Your task to perform on an android device: toggle javascript in the chrome app Image 0: 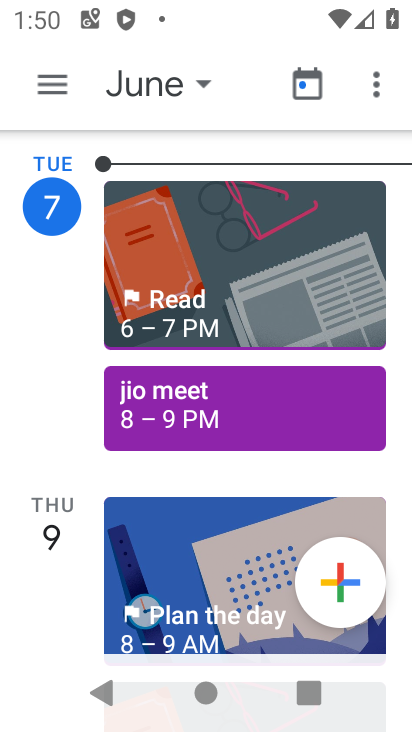
Step 0: press home button
Your task to perform on an android device: toggle javascript in the chrome app Image 1: 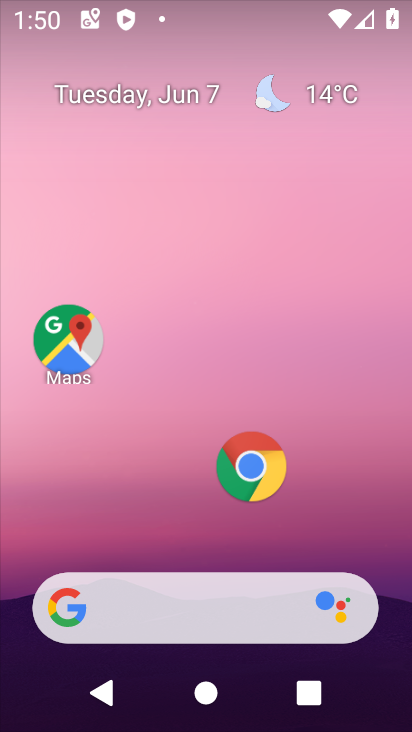
Step 1: click (254, 484)
Your task to perform on an android device: toggle javascript in the chrome app Image 2: 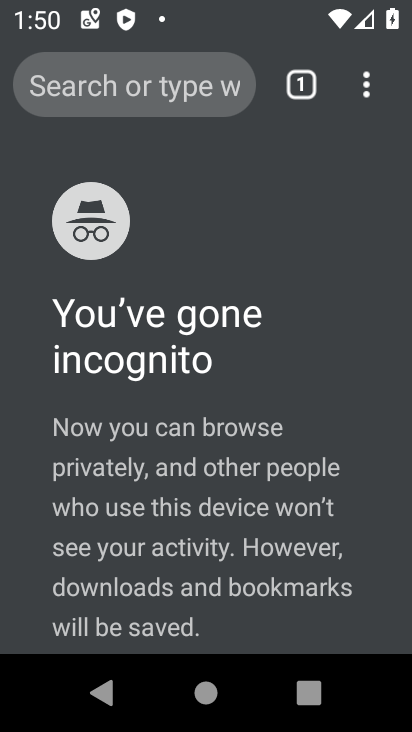
Step 2: click (369, 82)
Your task to perform on an android device: toggle javascript in the chrome app Image 3: 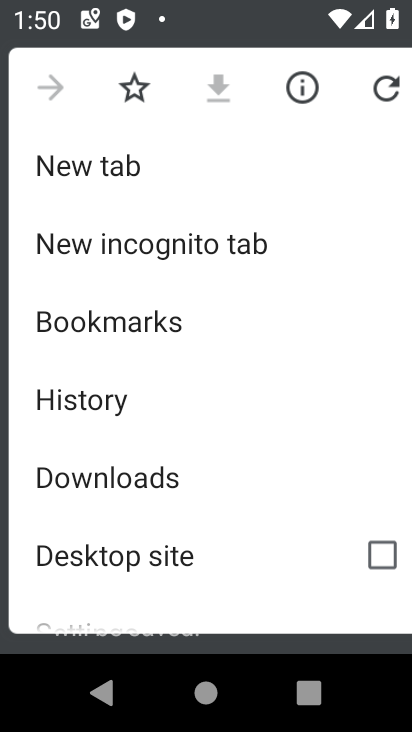
Step 3: drag from (177, 575) to (171, 236)
Your task to perform on an android device: toggle javascript in the chrome app Image 4: 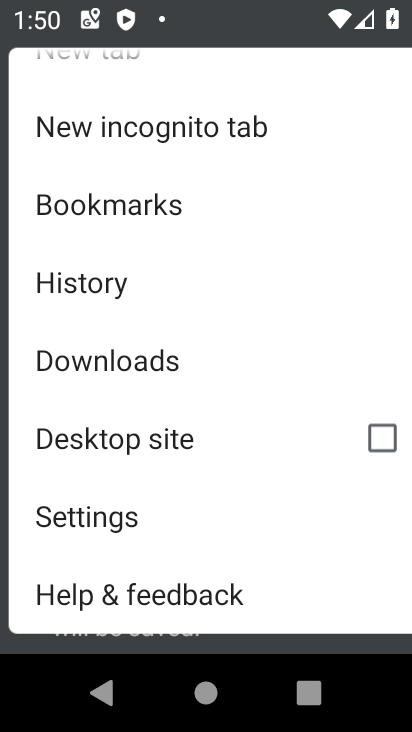
Step 4: click (134, 518)
Your task to perform on an android device: toggle javascript in the chrome app Image 5: 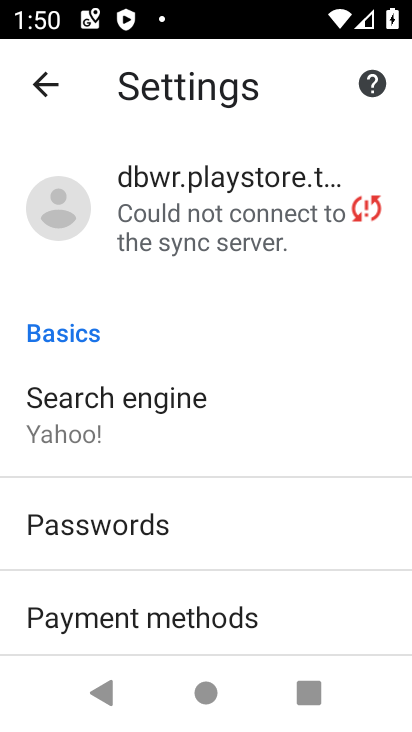
Step 5: drag from (283, 609) to (286, 305)
Your task to perform on an android device: toggle javascript in the chrome app Image 6: 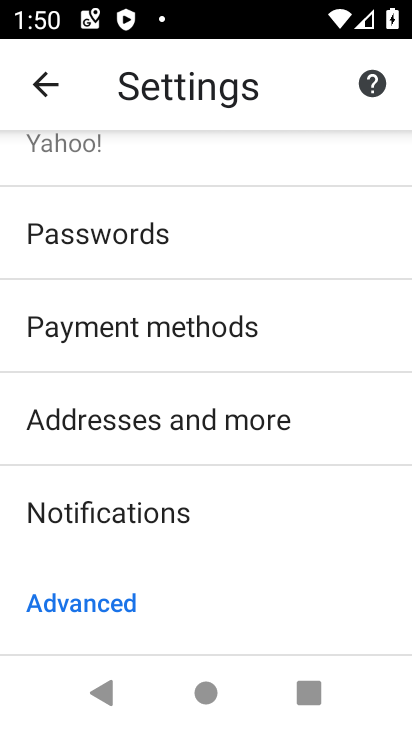
Step 6: drag from (206, 574) to (208, 182)
Your task to perform on an android device: toggle javascript in the chrome app Image 7: 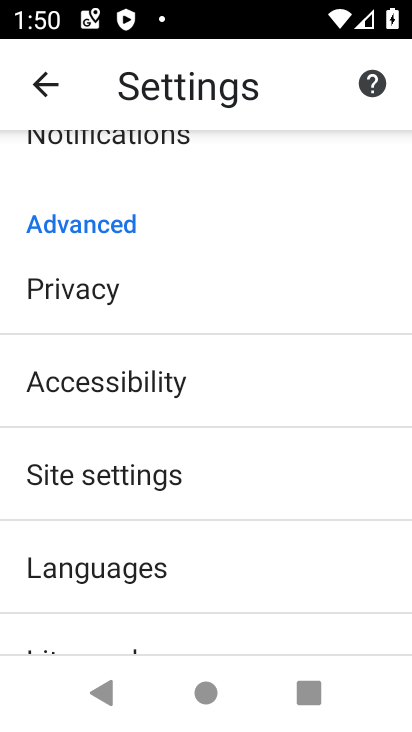
Step 7: click (102, 471)
Your task to perform on an android device: toggle javascript in the chrome app Image 8: 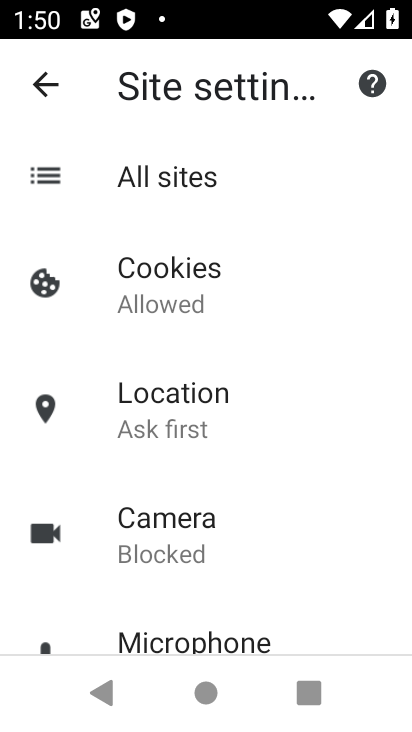
Step 8: drag from (279, 611) to (319, 239)
Your task to perform on an android device: toggle javascript in the chrome app Image 9: 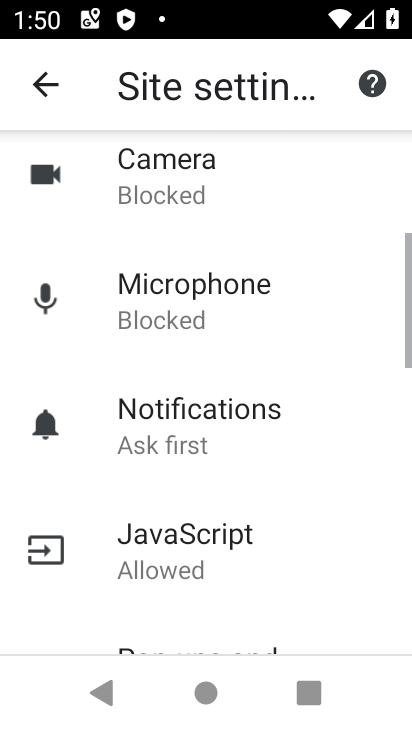
Step 9: click (196, 546)
Your task to perform on an android device: toggle javascript in the chrome app Image 10: 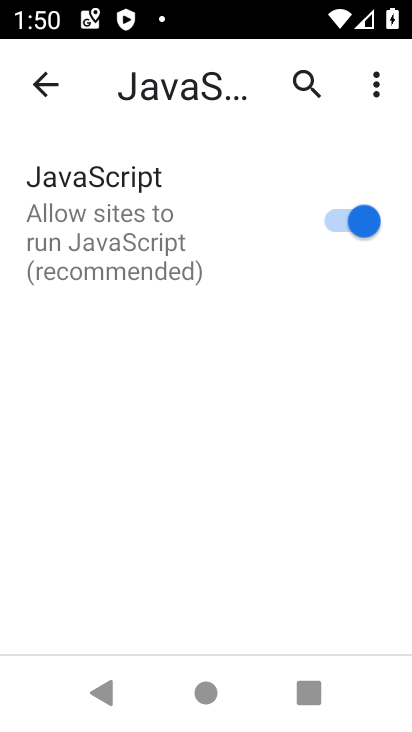
Step 10: click (363, 225)
Your task to perform on an android device: toggle javascript in the chrome app Image 11: 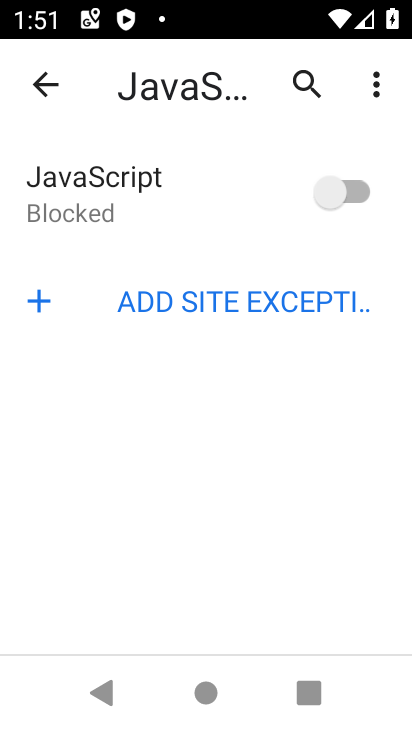
Step 11: task complete